Your task to perform on an android device: see creations saved in the google photos Image 0: 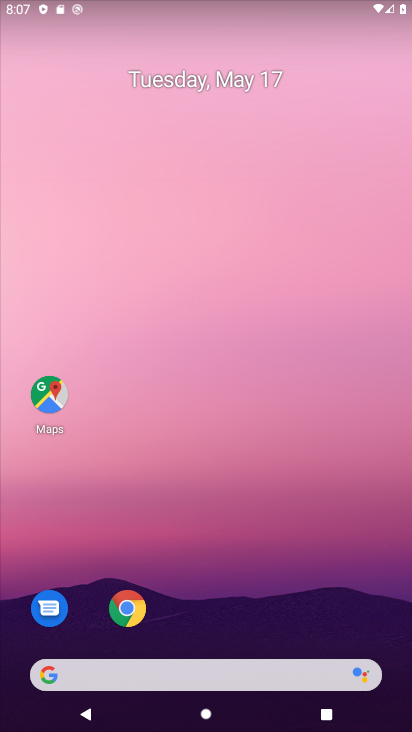
Step 0: drag from (361, 598) to (335, 149)
Your task to perform on an android device: see creations saved in the google photos Image 1: 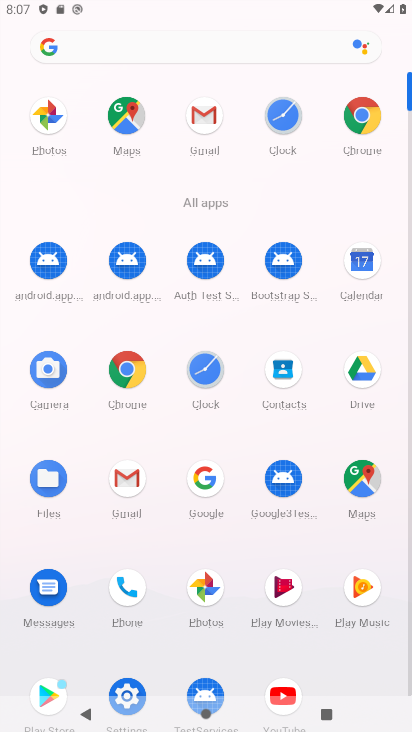
Step 1: click (206, 599)
Your task to perform on an android device: see creations saved in the google photos Image 2: 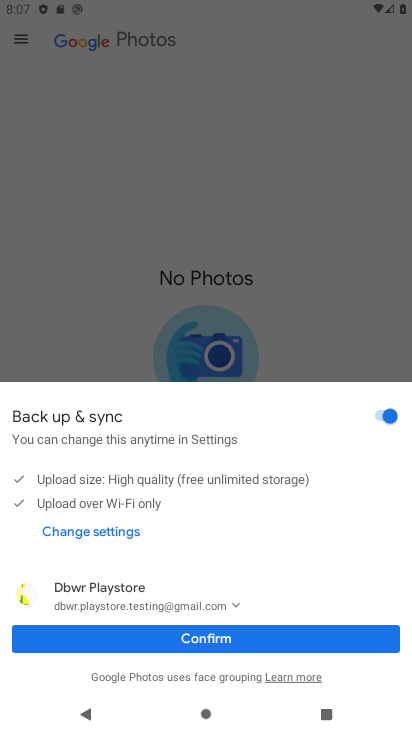
Step 2: click (326, 640)
Your task to perform on an android device: see creations saved in the google photos Image 3: 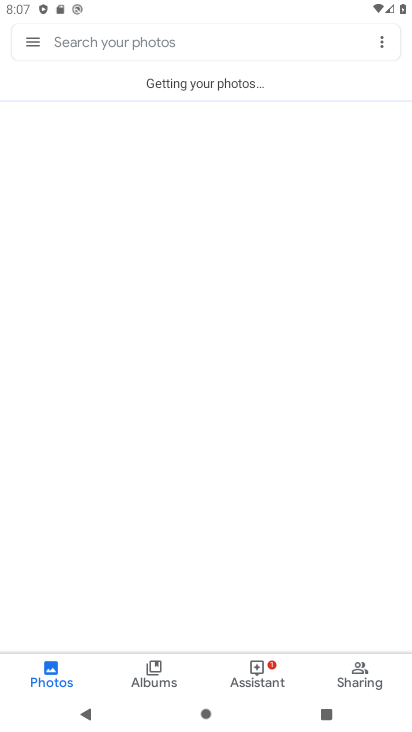
Step 3: click (154, 43)
Your task to perform on an android device: see creations saved in the google photos Image 4: 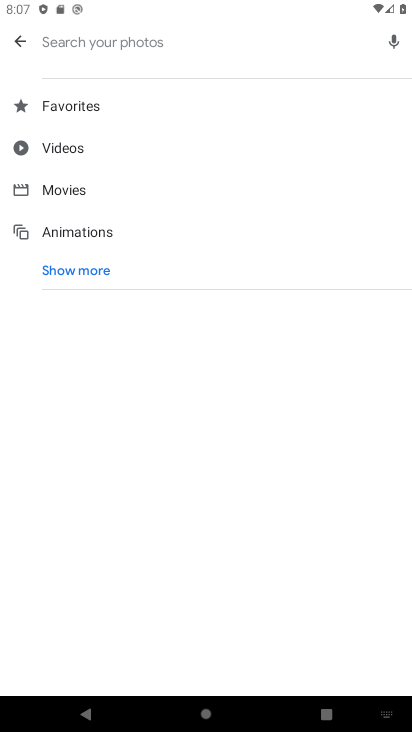
Step 4: click (96, 268)
Your task to perform on an android device: see creations saved in the google photos Image 5: 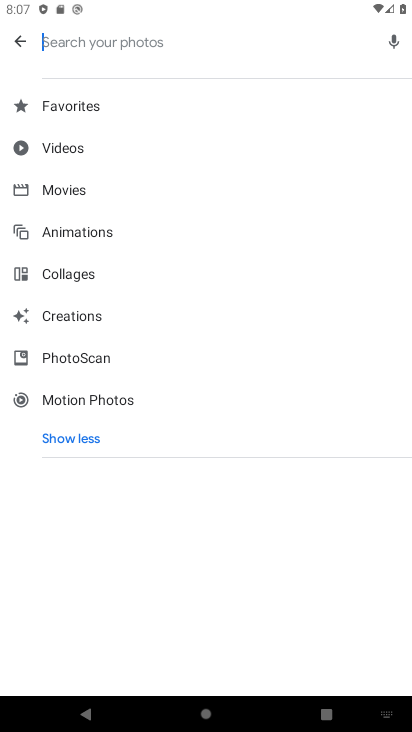
Step 5: click (62, 312)
Your task to perform on an android device: see creations saved in the google photos Image 6: 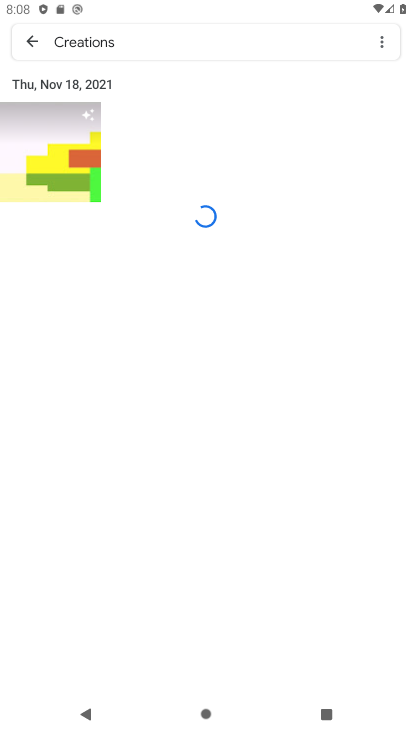
Step 6: task complete